Your task to perform on an android device: toggle data saver in the chrome app Image 0: 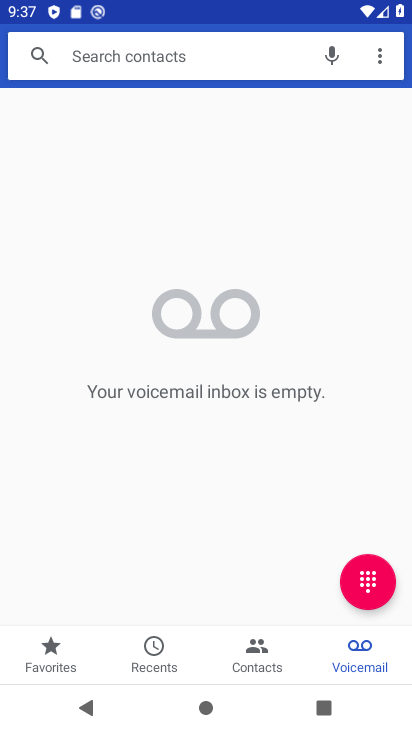
Step 0: press home button
Your task to perform on an android device: toggle data saver in the chrome app Image 1: 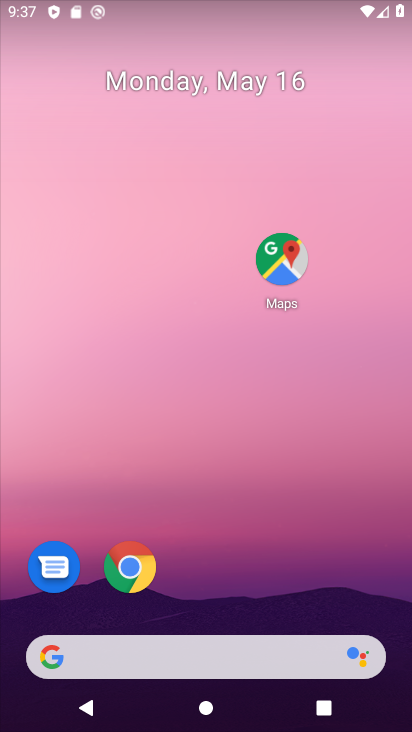
Step 1: click (133, 568)
Your task to perform on an android device: toggle data saver in the chrome app Image 2: 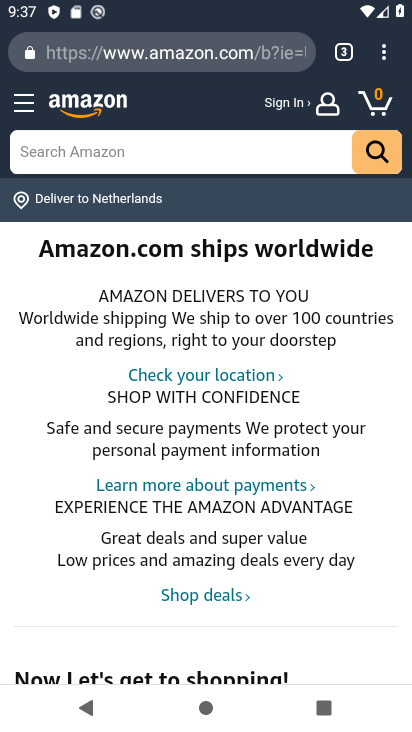
Step 2: click (379, 57)
Your task to perform on an android device: toggle data saver in the chrome app Image 3: 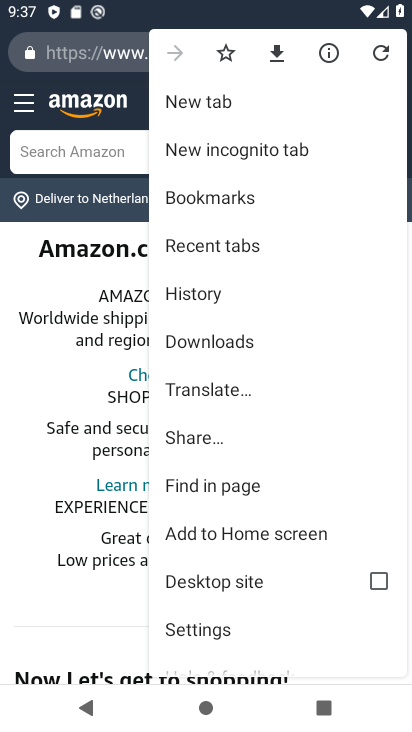
Step 3: click (211, 634)
Your task to perform on an android device: toggle data saver in the chrome app Image 4: 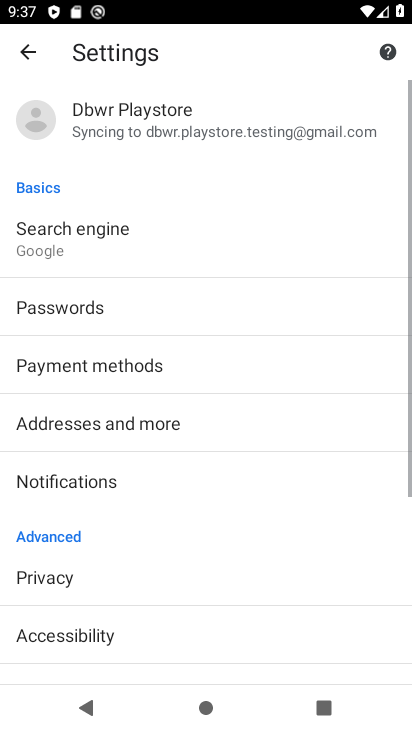
Step 4: drag from (191, 592) to (175, 168)
Your task to perform on an android device: toggle data saver in the chrome app Image 5: 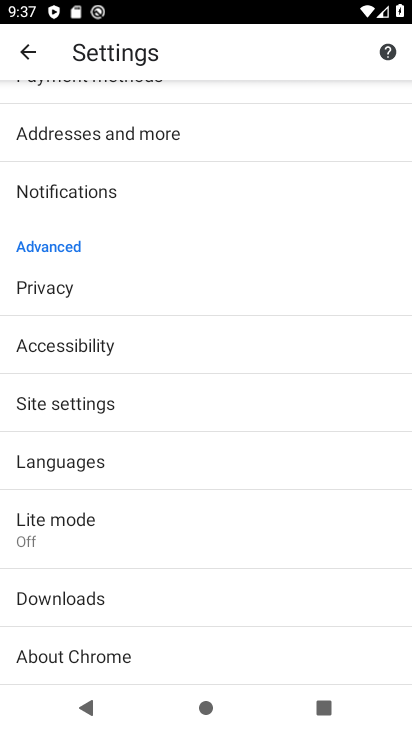
Step 5: click (130, 521)
Your task to perform on an android device: toggle data saver in the chrome app Image 6: 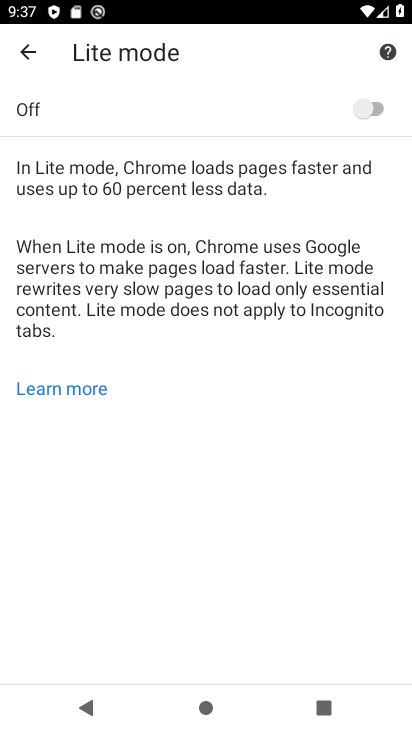
Step 6: click (375, 106)
Your task to perform on an android device: toggle data saver in the chrome app Image 7: 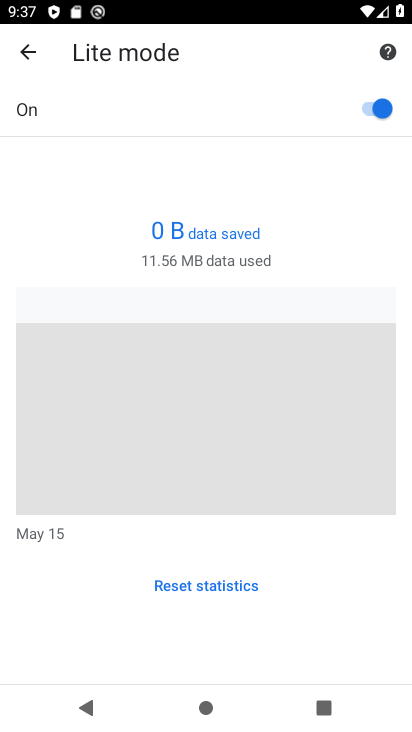
Step 7: task complete